Your task to perform on an android device: What's on my calendar tomorrow? Image 0: 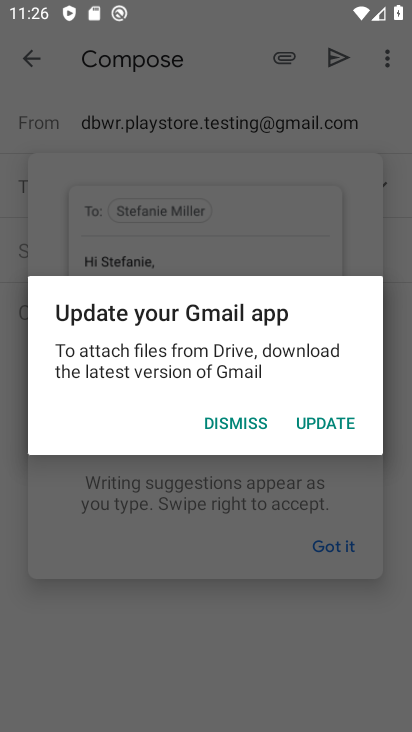
Step 0: press home button
Your task to perform on an android device: What's on my calendar tomorrow? Image 1: 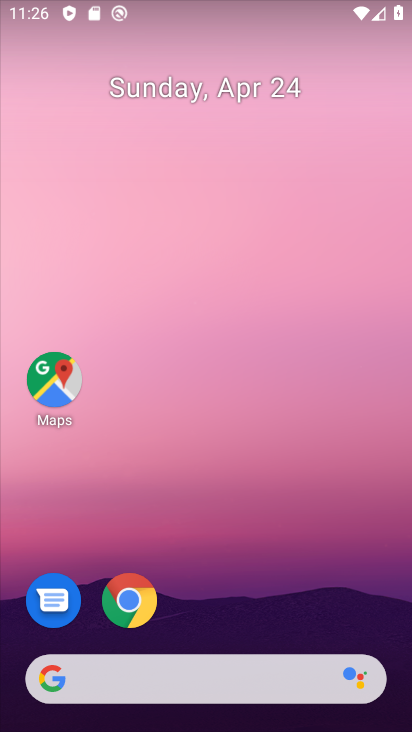
Step 1: drag from (173, 684) to (216, 220)
Your task to perform on an android device: What's on my calendar tomorrow? Image 2: 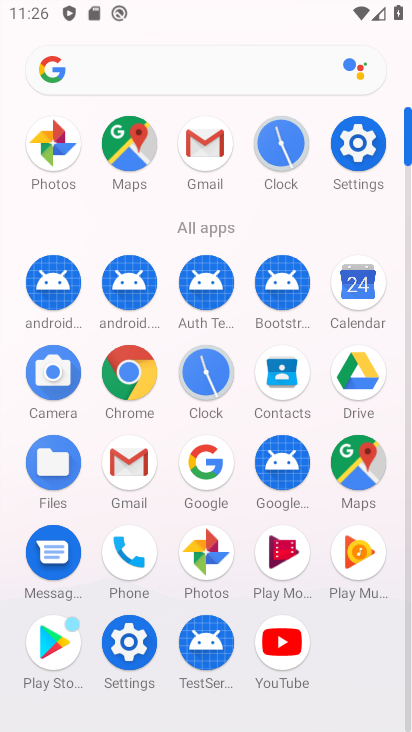
Step 2: click (351, 283)
Your task to perform on an android device: What's on my calendar tomorrow? Image 3: 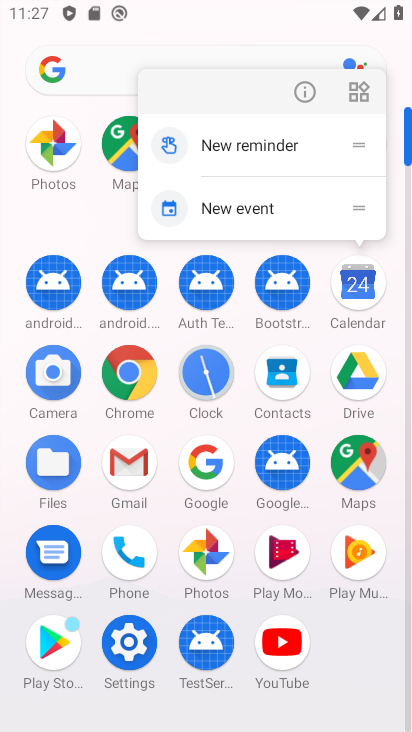
Step 3: click (360, 300)
Your task to perform on an android device: What's on my calendar tomorrow? Image 4: 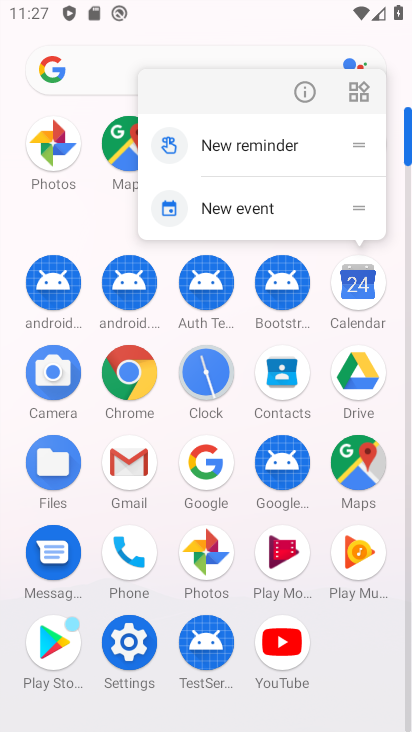
Step 4: click (362, 299)
Your task to perform on an android device: What's on my calendar tomorrow? Image 5: 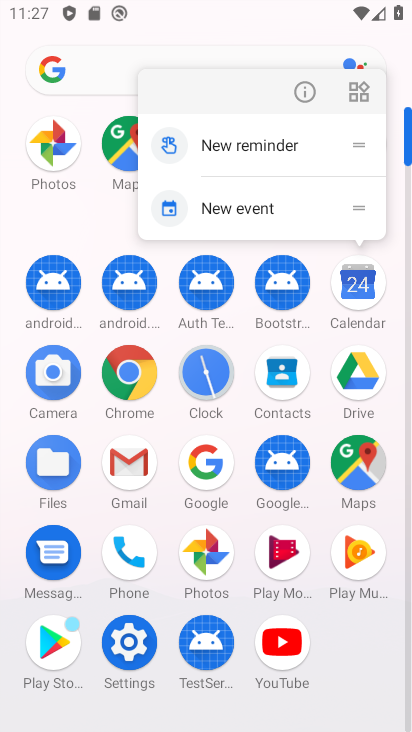
Step 5: click (362, 299)
Your task to perform on an android device: What's on my calendar tomorrow? Image 6: 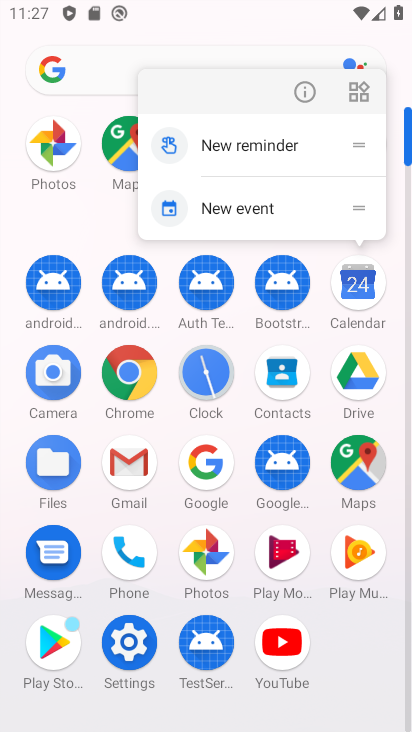
Step 6: click (362, 299)
Your task to perform on an android device: What's on my calendar tomorrow? Image 7: 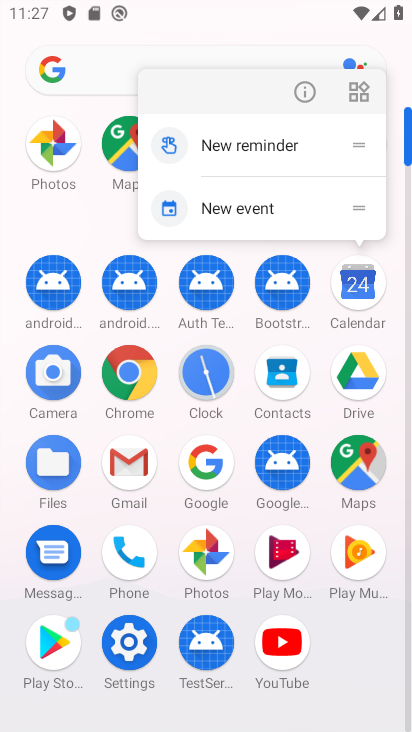
Step 7: click (362, 299)
Your task to perform on an android device: What's on my calendar tomorrow? Image 8: 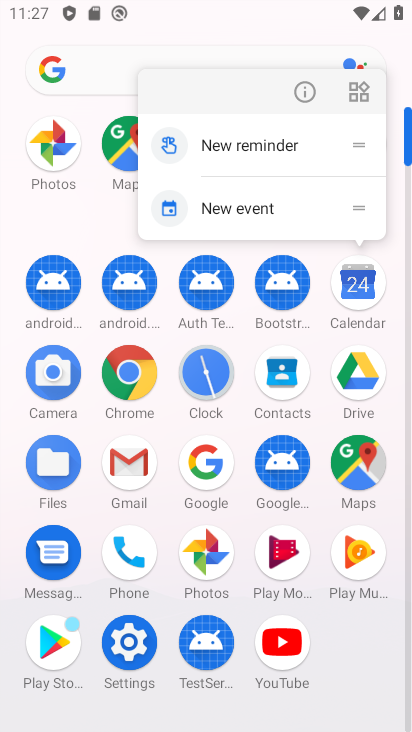
Step 8: click (362, 299)
Your task to perform on an android device: What's on my calendar tomorrow? Image 9: 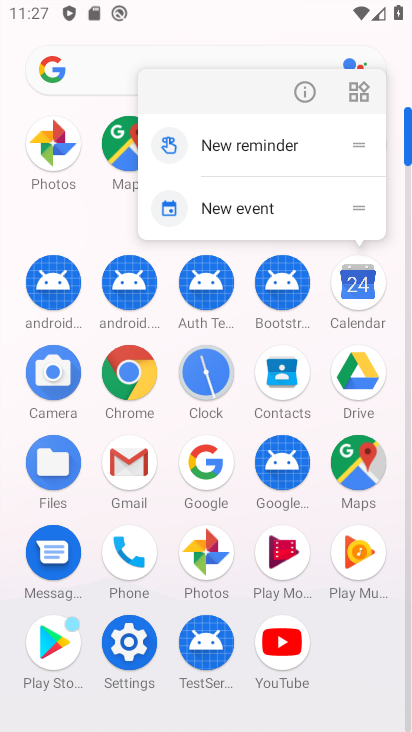
Step 9: click (362, 299)
Your task to perform on an android device: What's on my calendar tomorrow? Image 10: 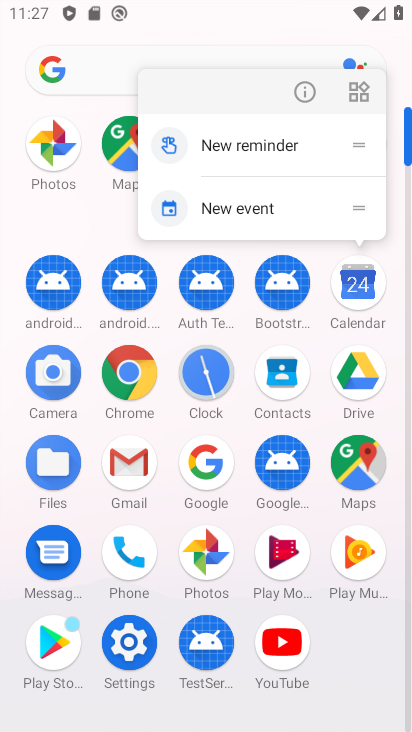
Step 10: click (362, 299)
Your task to perform on an android device: What's on my calendar tomorrow? Image 11: 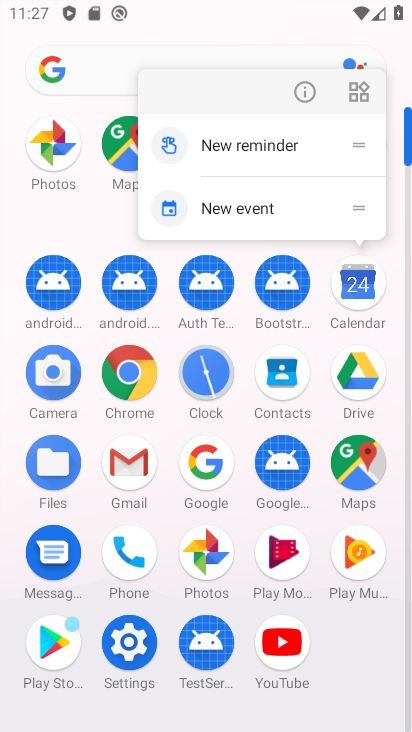
Step 11: click (362, 299)
Your task to perform on an android device: What's on my calendar tomorrow? Image 12: 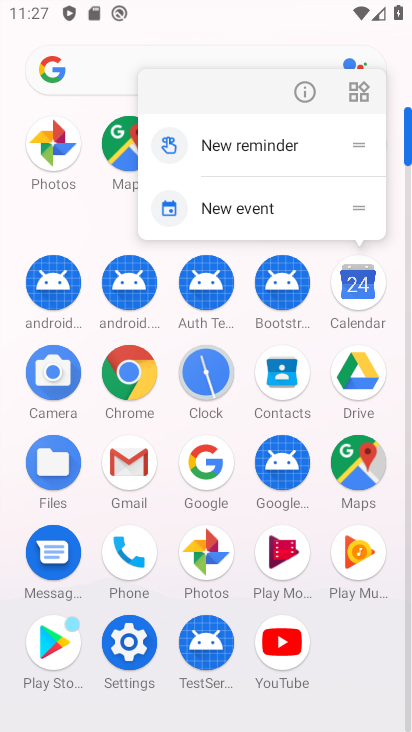
Step 12: click (362, 299)
Your task to perform on an android device: What's on my calendar tomorrow? Image 13: 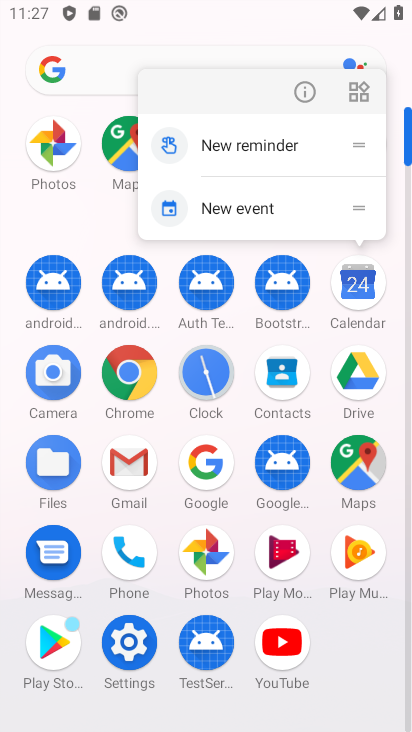
Step 13: click (362, 299)
Your task to perform on an android device: What's on my calendar tomorrow? Image 14: 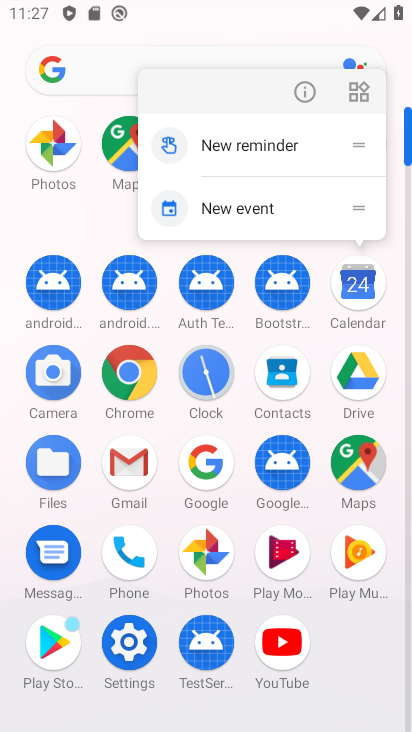
Step 14: click (362, 299)
Your task to perform on an android device: What's on my calendar tomorrow? Image 15: 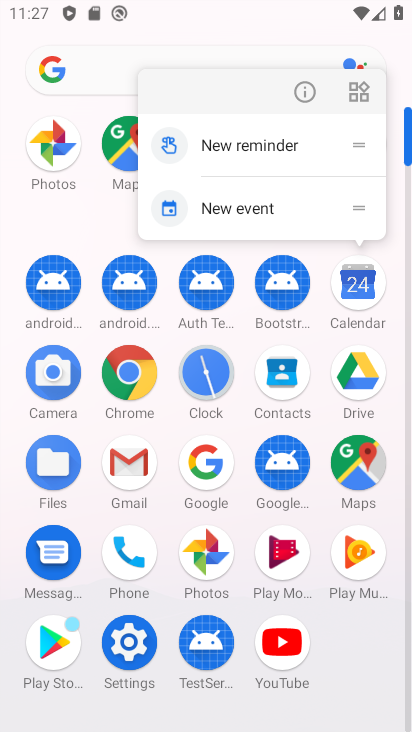
Step 15: click (362, 299)
Your task to perform on an android device: What's on my calendar tomorrow? Image 16: 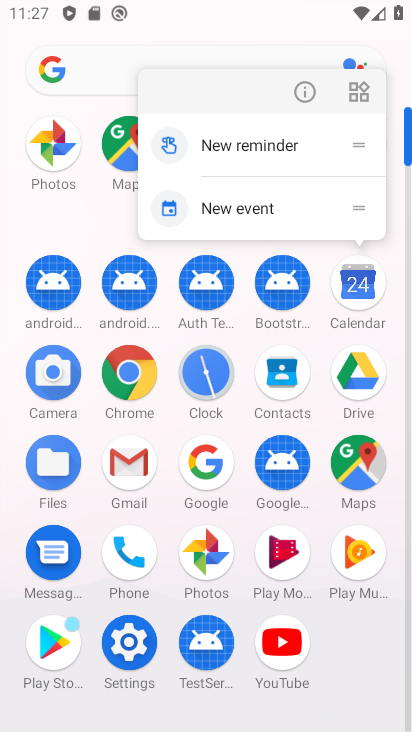
Step 16: click (362, 299)
Your task to perform on an android device: What's on my calendar tomorrow? Image 17: 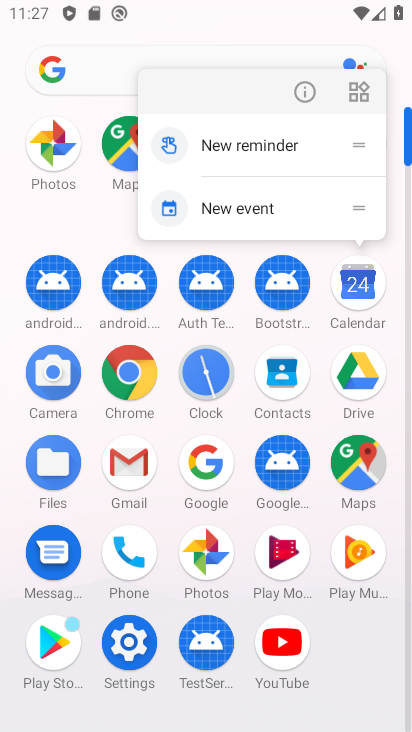
Step 17: click (362, 299)
Your task to perform on an android device: What's on my calendar tomorrow? Image 18: 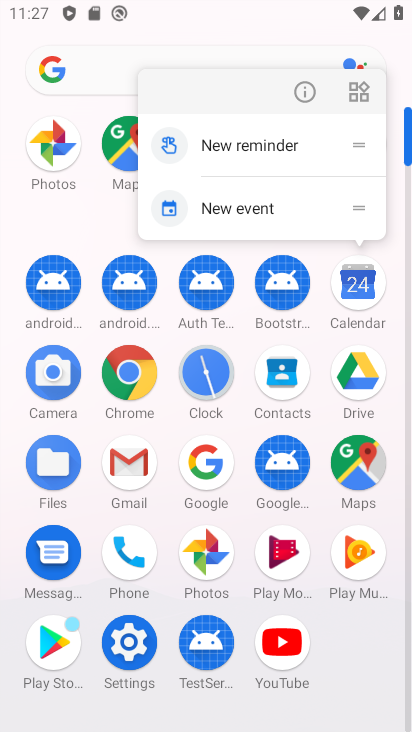
Step 18: click (362, 299)
Your task to perform on an android device: What's on my calendar tomorrow? Image 19: 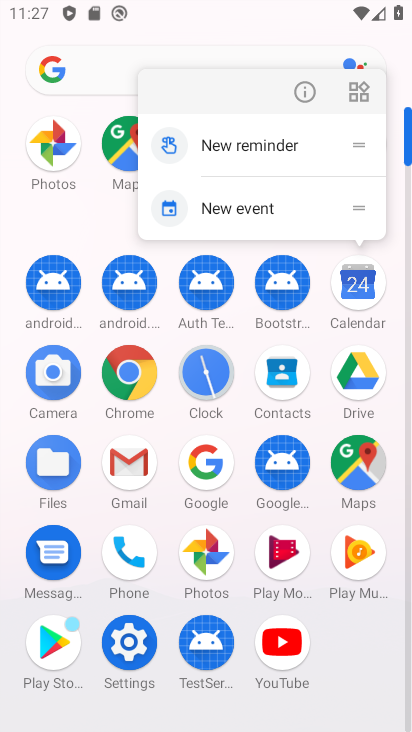
Step 19: click (362, 299)
Your task to perform on an android device: What's on my calendar tomorrow? Image 20: 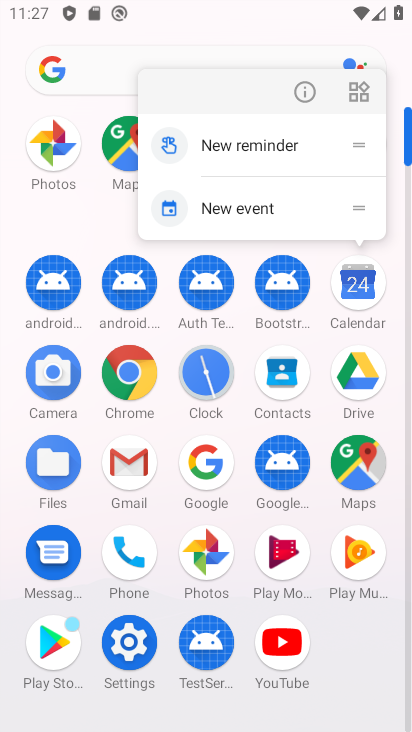
Step 20: click (362, 299)
Your task to perform on an android device: What's on my calendar tomorrow? Image 21: 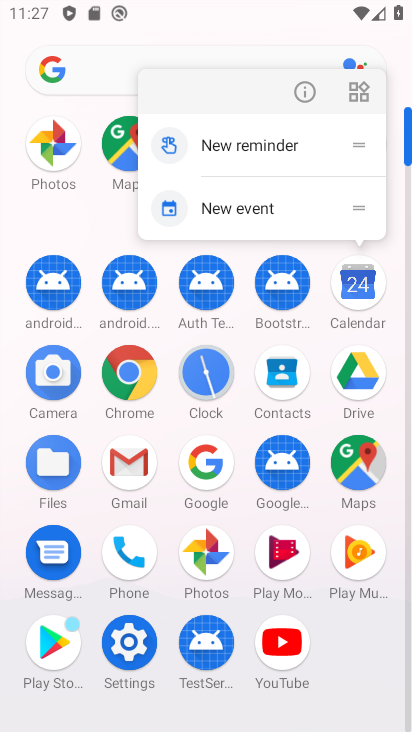
Step 21: click (362, 299)
Your task to perform on an android device: What's on my calendar tomorrow? Image 22: 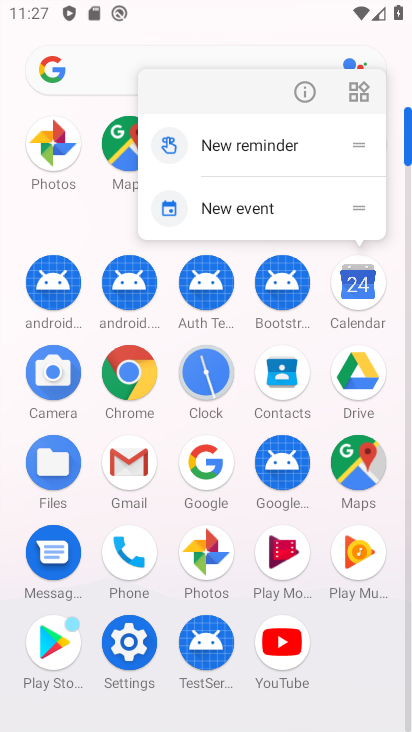
Step 22: click (362, 299)
Your task to perform on an android device: What's on my calendar tomorrow? Image 23: 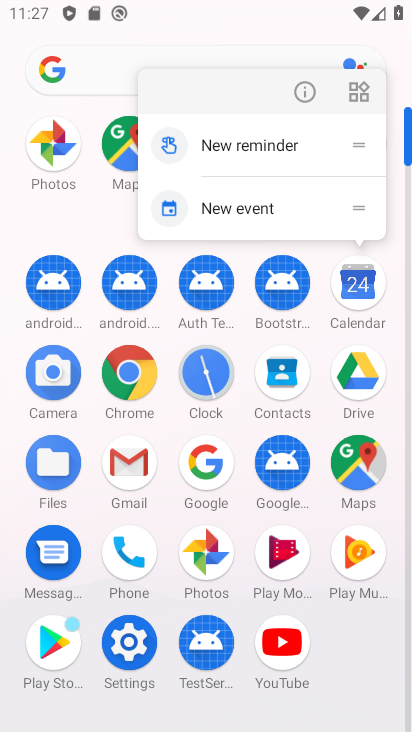
Step 23: click (362, 299)
Your task to perform on an android device: What's on my calendar tomorrow? Image 24: 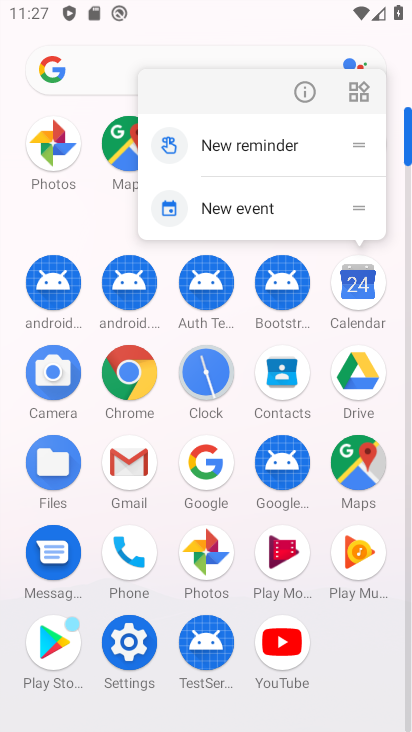
Step 24: click (362, 299)
Your task to perform on an android device: What's on my calendar tomorrow? Image 25: 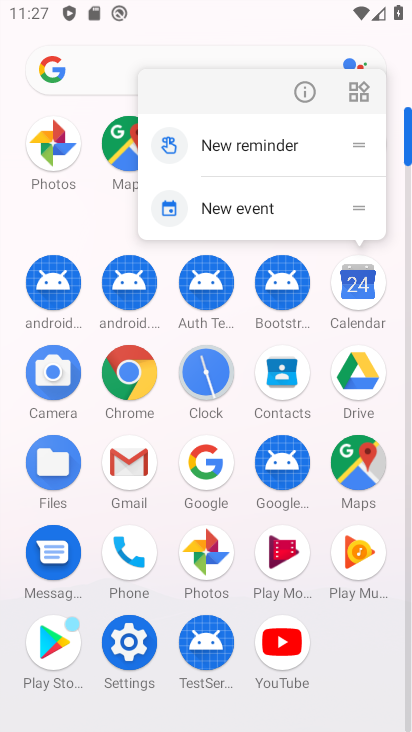
Step 25: click (362, 299)
Your task to perform on an android device: What's on my calendar tomorrow? Image 26: 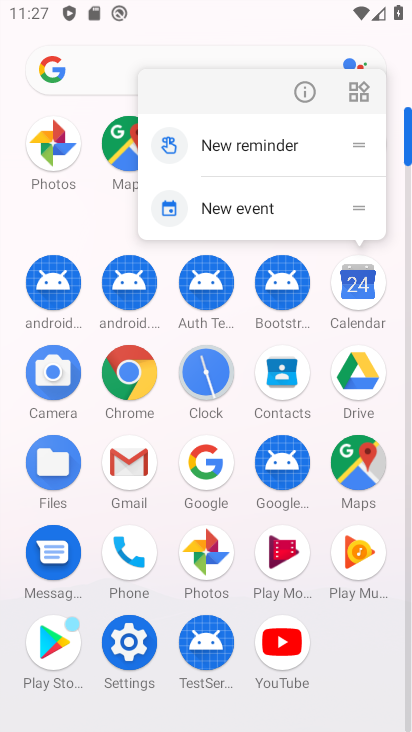
Step 26: click (362, 299)
Your task to perform on an android device: What's on my calendar tomorrow? Image 27: 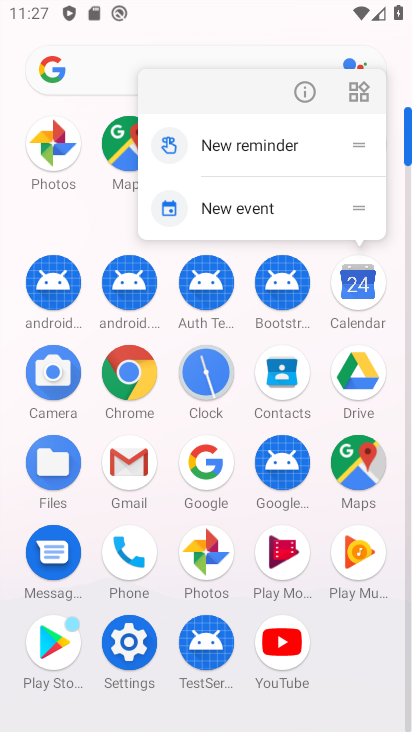
Step 27: click (362, 299)
Your task to perform on an android device: What's on my calendar tomorrow? Image 28: 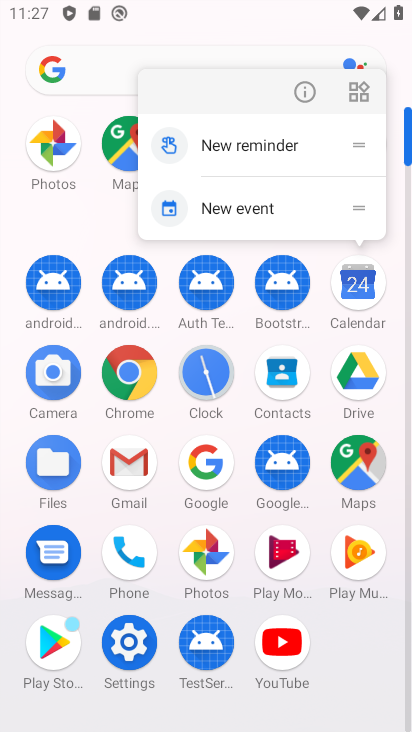
Step 28: click (362, 299)
Your task to perform on an android device: What's on my calendar tomorrow? Image 29: 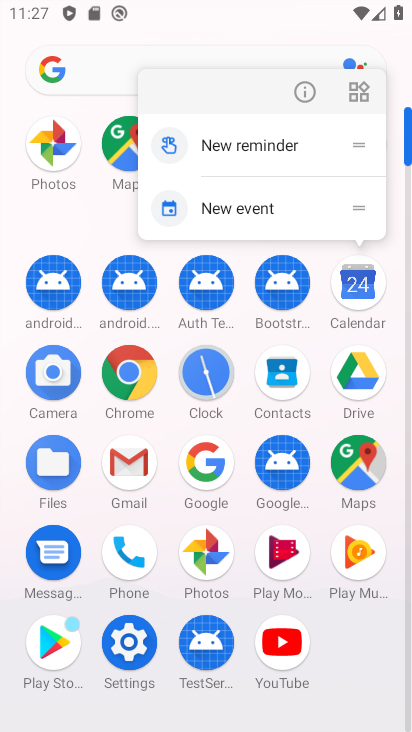
Step 29: click (362, 299)
Your task to perform on an android device: What's on my calendar tomorrow? Image 30: 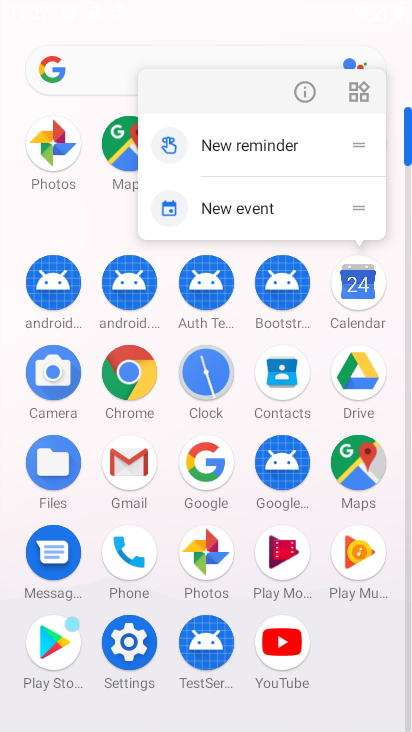
Step 30: click (362, 299)
Your task to perform on an android device: What's on my calendar tomorrow? Image 31: 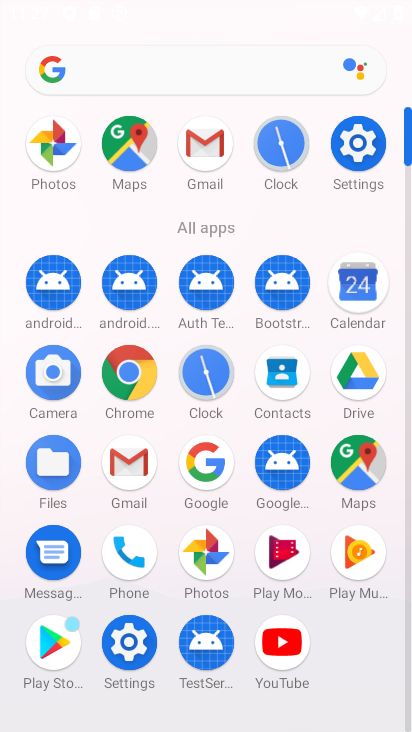
Step 31: click (362, 299)
Your task to perform on an android device: What's on my calendar tomorrow? Image 32: 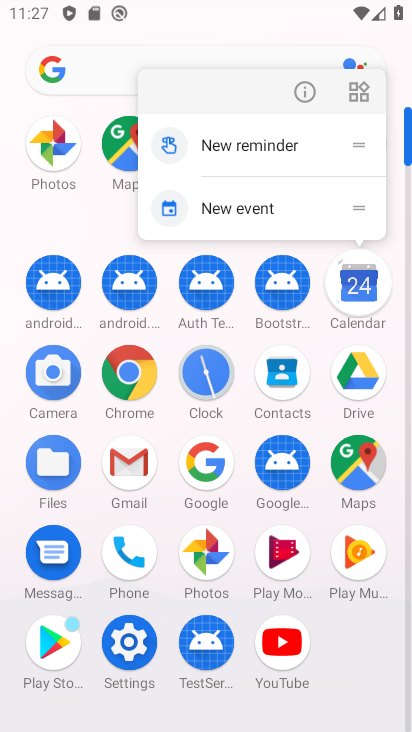
Step 32: click (362, 299)
Your task to perform on an android device: What's on my calendar tomorrow? Image 33: 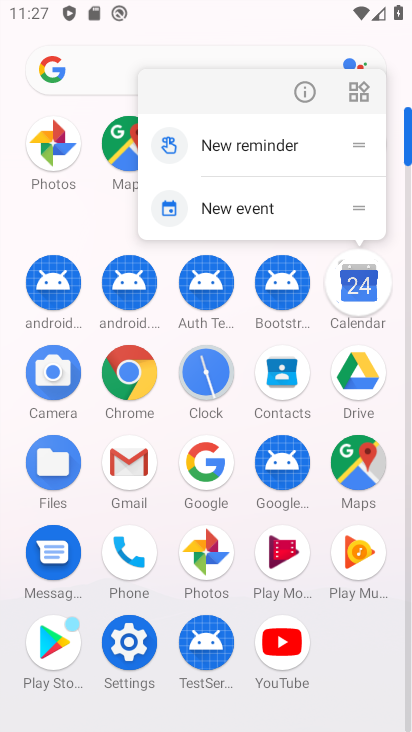
Step 33: click (362, 299)
Your task to perform on an android device: What's on my calendar tomorrow? Image 34: 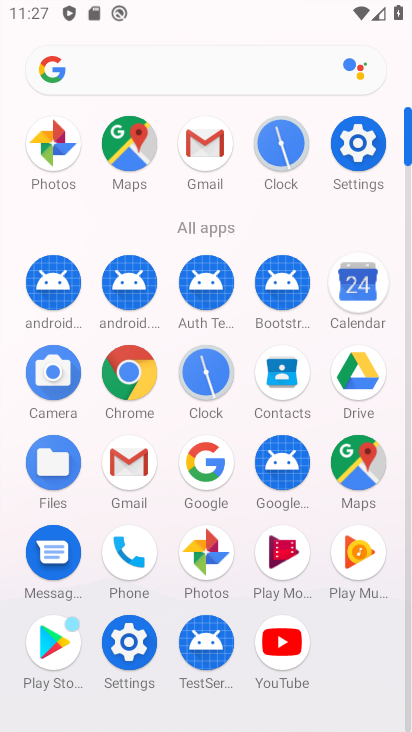
Step 34: click (362, 299)
Your task to perform on an android device: What's on my calendar tomorrow? Image 35: 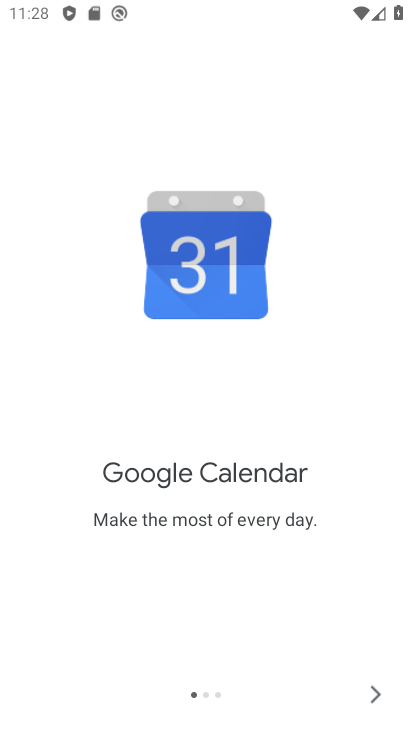
Step 35: click (381, 699)
Your task to perform on an android device: What's on my calendar tomorrow? Image 36: 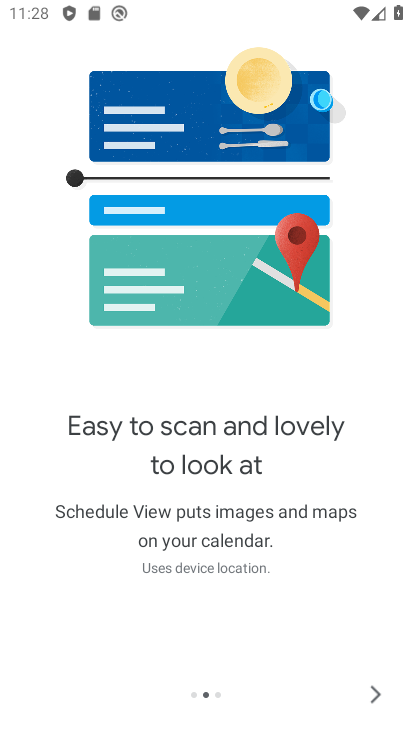
Step 36: click (376, 696)
Your task to perform on an android device: What's on my calendar tomorrow? Image 37: 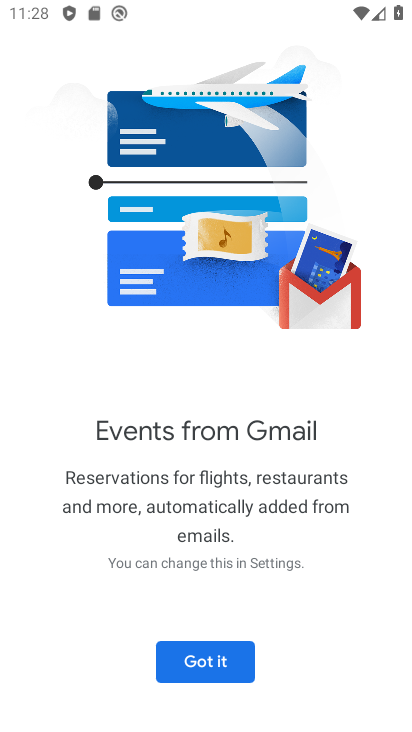
Step 37: click (191, 677)
Your task to perform on an android device: What's on my calendar tomorrow? Image 38: 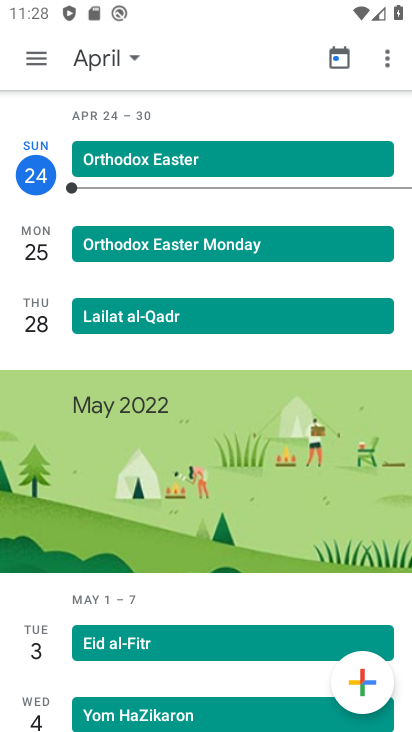
Step 38: task complete